Your task to perform on an android device: When is my next appointment? Image 0: 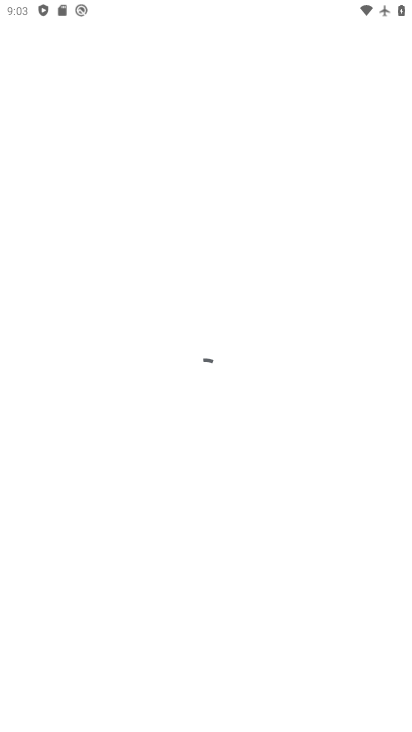
Step 0: press home button
Your task to perform on an android device: When is my next appointment? Image 1: 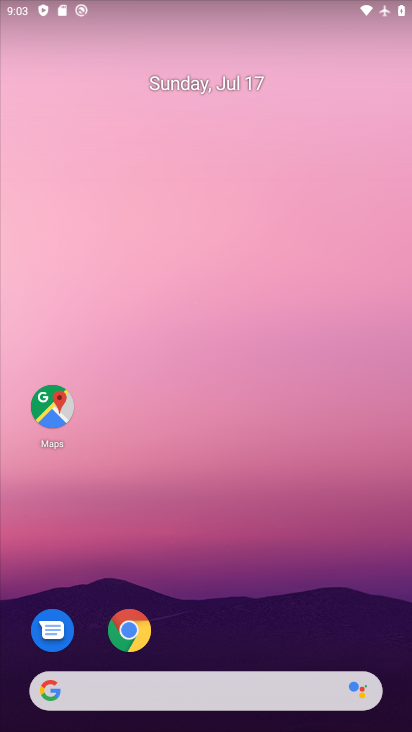
Step 1: drag from (227, 651) to (246, 388)
Your task to perform on an android device: When is my next appointment? Image 2: 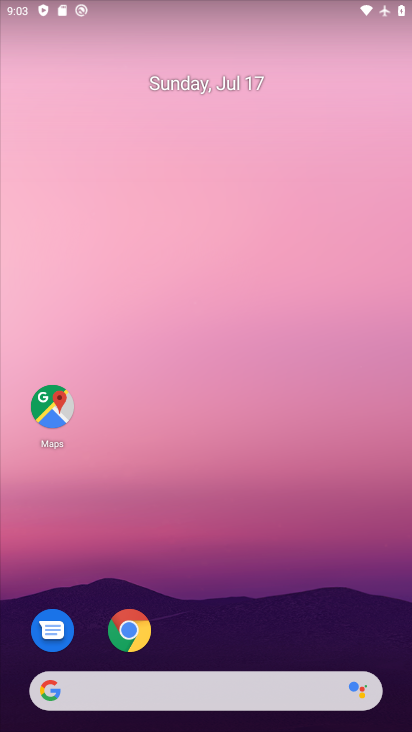
Step 2: drag from (240, 643) to (301, 207)
Your task to perform on an android device: When is my next appointment? Image 3: 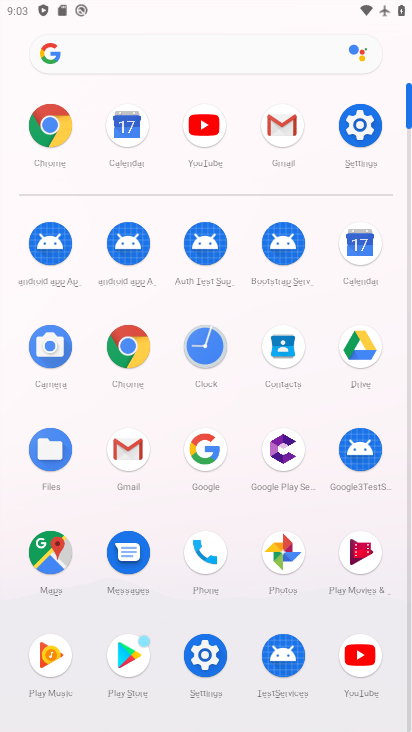
Step 3: click (338, 252)
Your task to perform on an android device: When is my next appointment? Image 4: 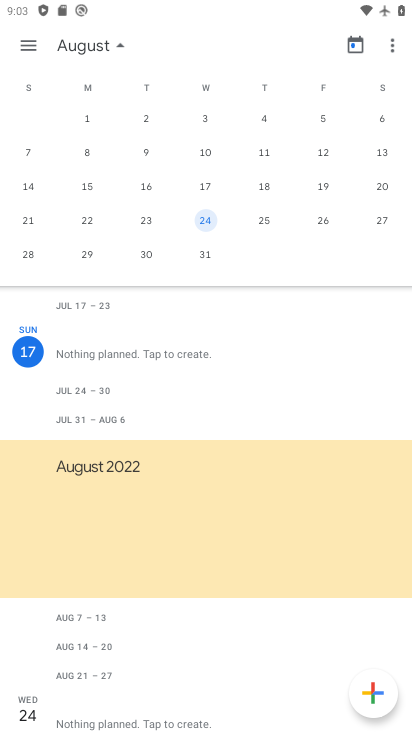
Step 4: task complete